Your task to perform on an android device: turn on location history Image 0: 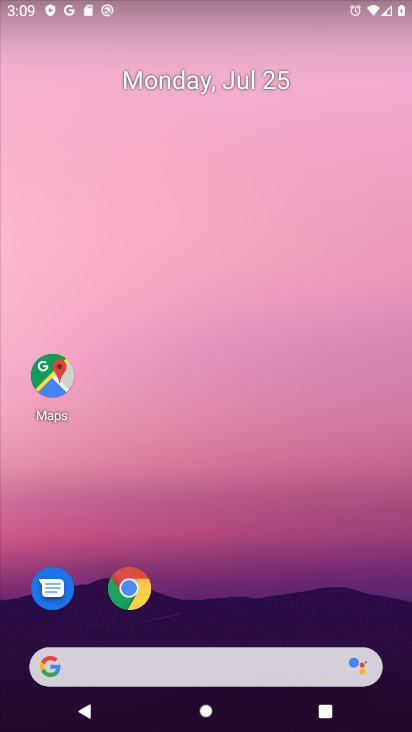
Step 0: press home button
Your task to perform on an android device: turn on location history Image 1: 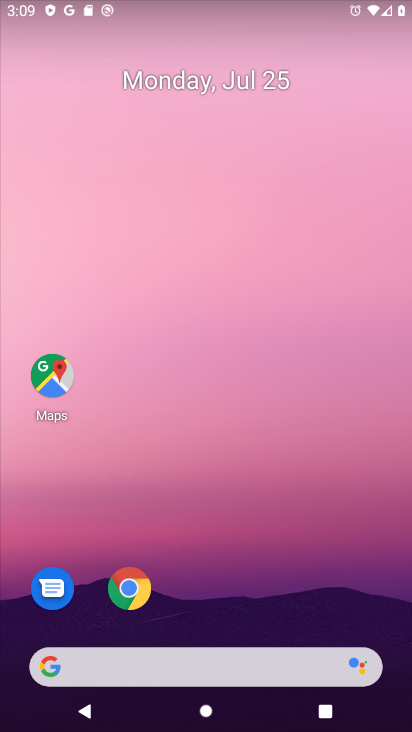
Step 1: drag from (211, 6) to (211, 544)
Your task to perform on an android device: turn on location history Image 2: 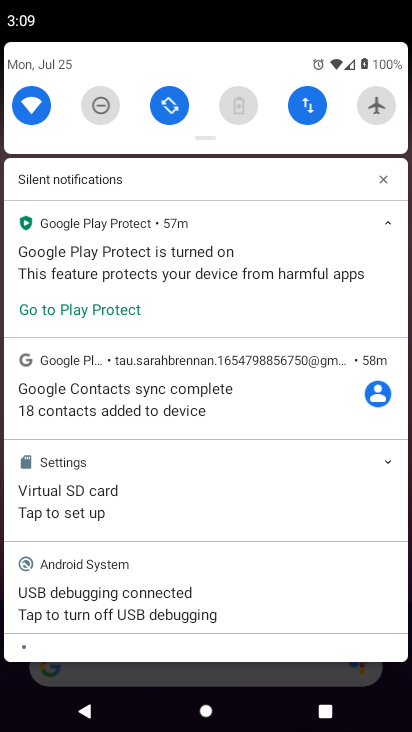
Step 2: press home button
Your task to perform on an android device: turn on location history Image 3: 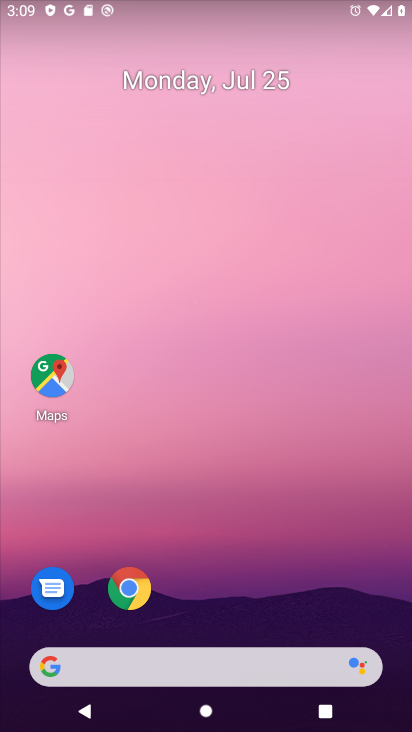
Step 3: drag from (237, 607) to (257, 14)
Your task to perform on an android device: turn on location history Image 4: 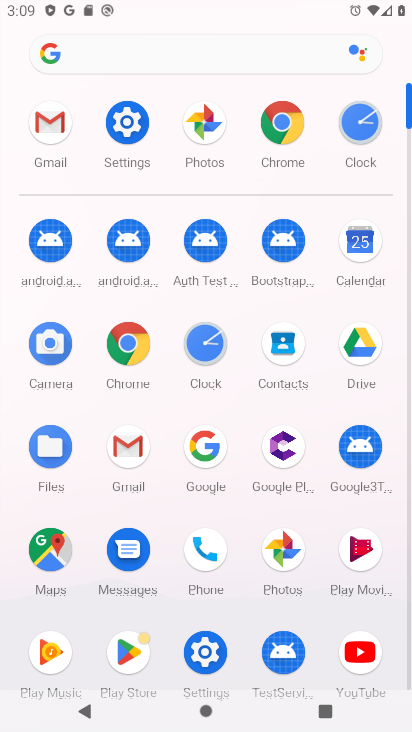
Step 4: click (205, 644)
Your task to perform on an android device: turn on location history Image 5: 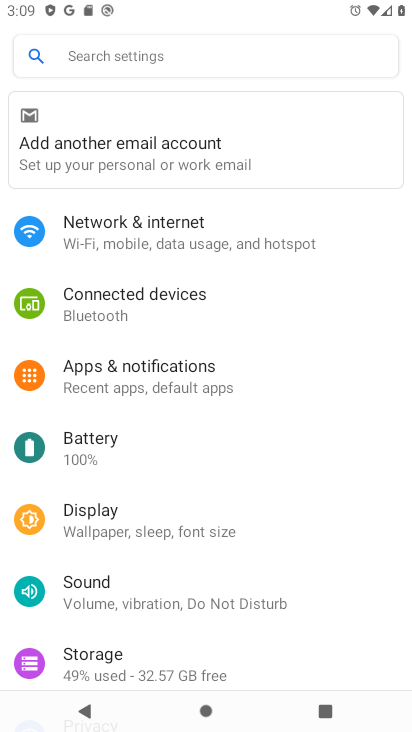
Step 5: drag from (191, 625) to (218, 112)
Your task to perform on an android device: turn on location history Image 6: 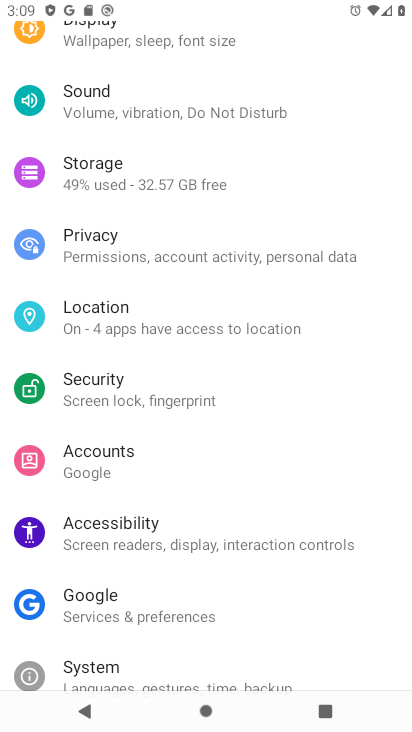
Step 6: click (146, 307)
Your task to perform on an android device: turn on location history Image 7: 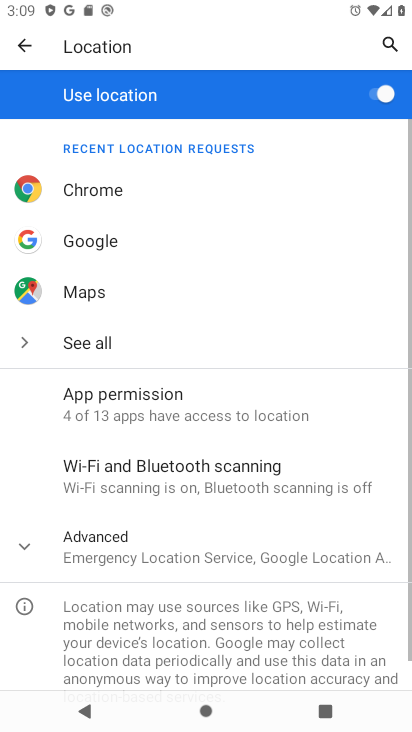
Step 7: click (38, 548)
Your task to perform on an android device: turn on location history Image 8: 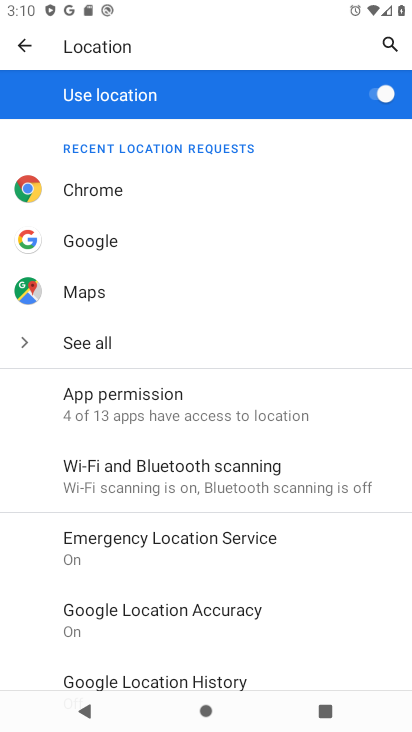
Step 8: click (258, 668)
Your task to perform on an android device: turn on location history Image 9: 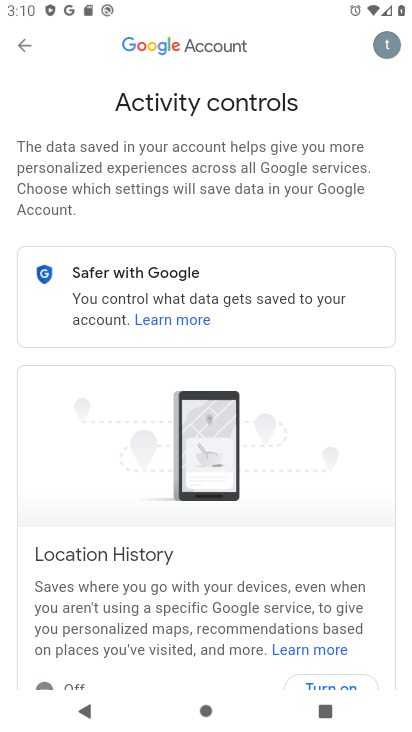
Step 9: drag from (205, 597) to (224, 241)
Your task to perform on an android device: turn on location history Image 10: 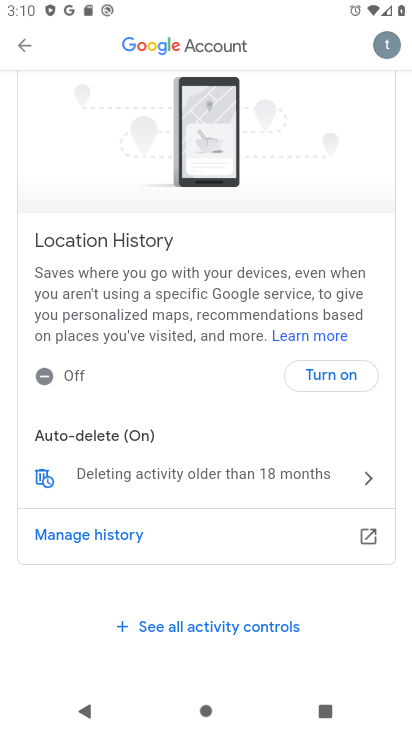
Step 10: click (321, 371)
Your task to perform on an android device: turn on location history Image 11: 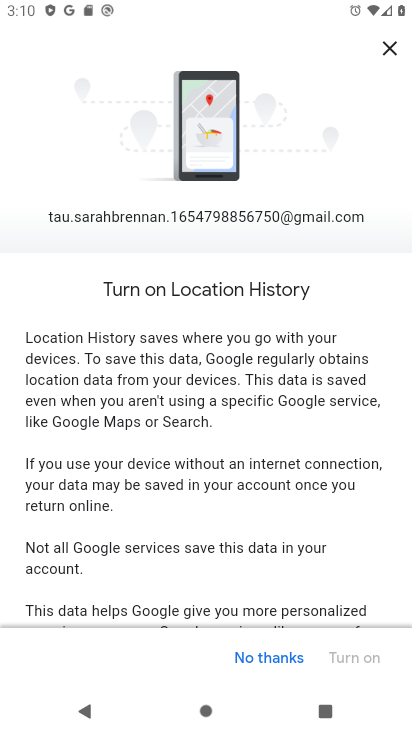
Step 11: drag from (305, 594) to (348, 130)
Your task to perform on an android device: turn on location history Image 12: 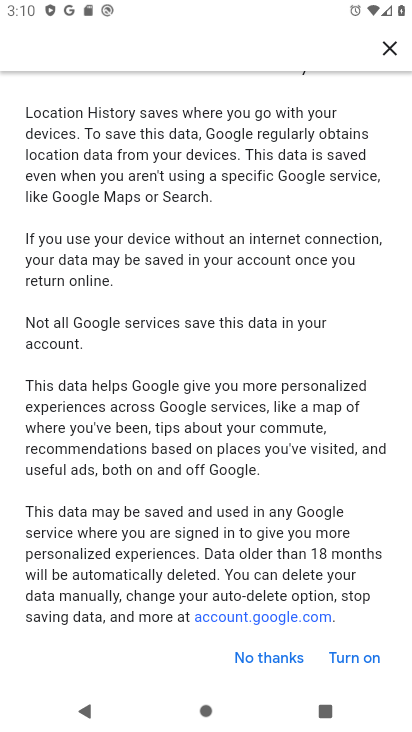
Step 12: click (352, 659)
Your task to perform on an android device: turn on location history Image 13: 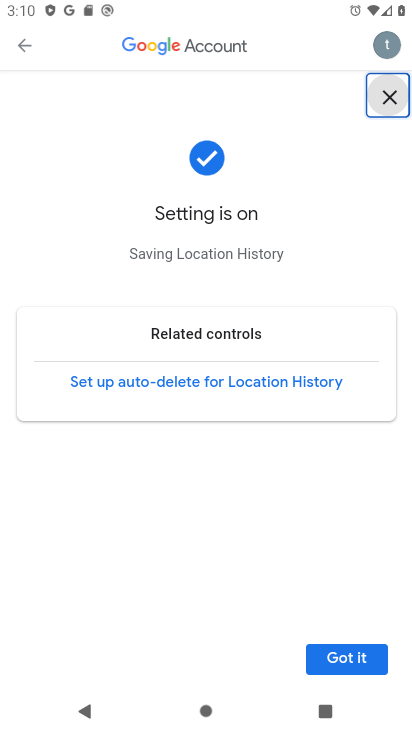
Step 13: click (352, 660)
Your task to perform on an android device: turn on location history Image 14: 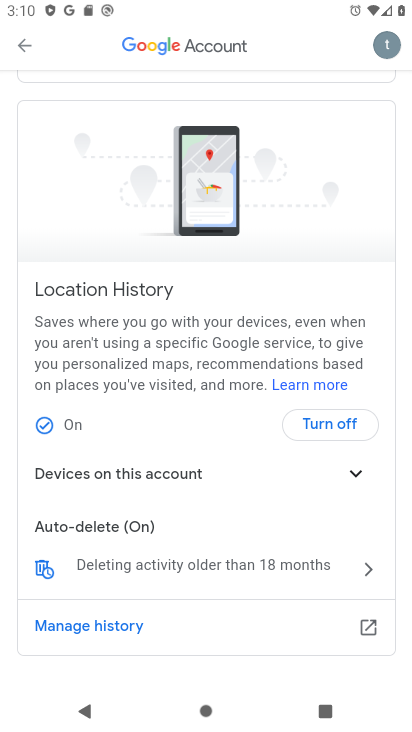
Step 14: task complete